Your task to perform on an android device: Open Google Chrome and click the shortcut for Amazon.com Image 0: 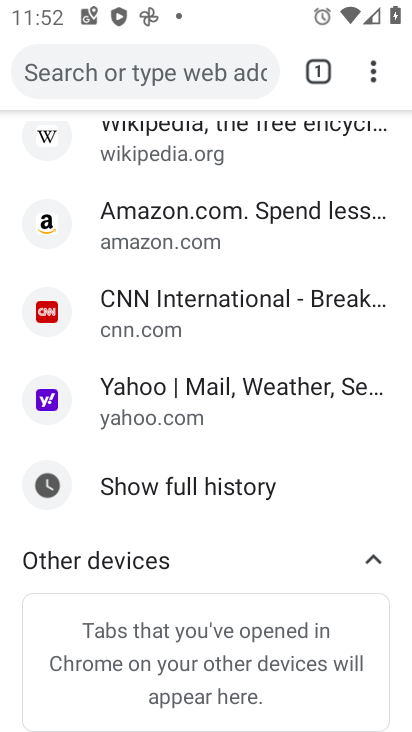
Step 0: press home button
Your task to perform on an android device: Open Google Chrome and click the shortcut for Amazon.com Image 1: 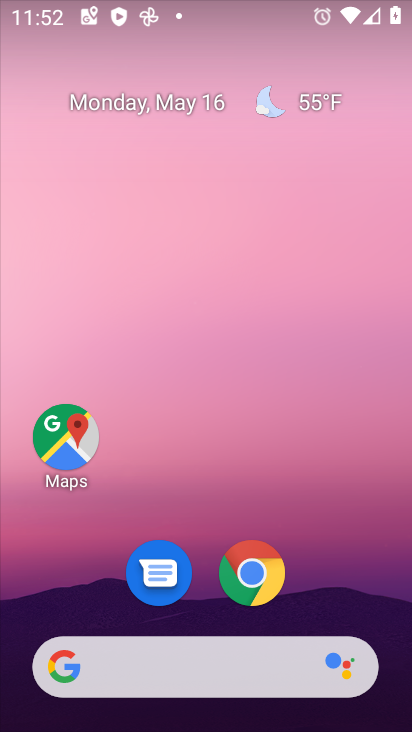
Step 1: click (267, 555)
Your task to perform on an android device: Open Google Chrome and click the shortcut for Amazon.com Image 2: 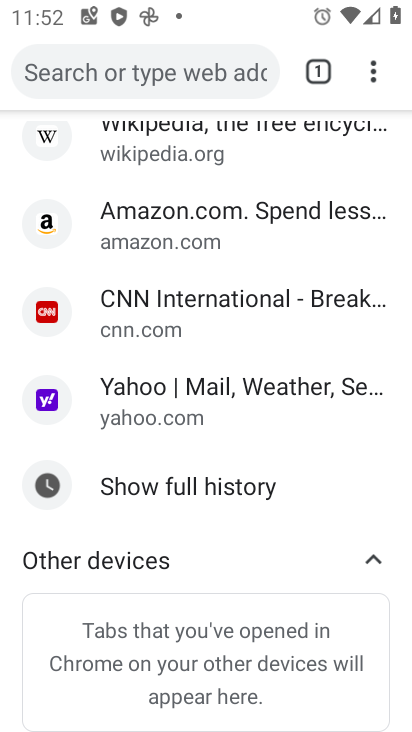
Step 2: click (318, 78)
Your task to perform on an android device: Open Google Chrome and click the shortcut for Amazon.com Image 3: 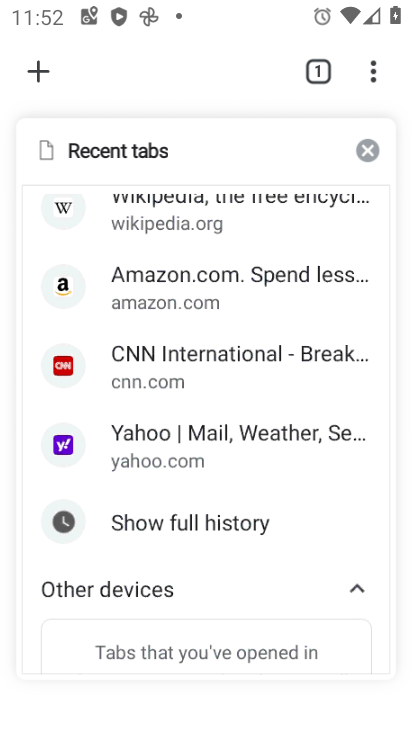
Step 3: click (375, 158)
Your task to perform on an android device: Open Google Chrome and click the shortcut for Amazon.com Image 4: 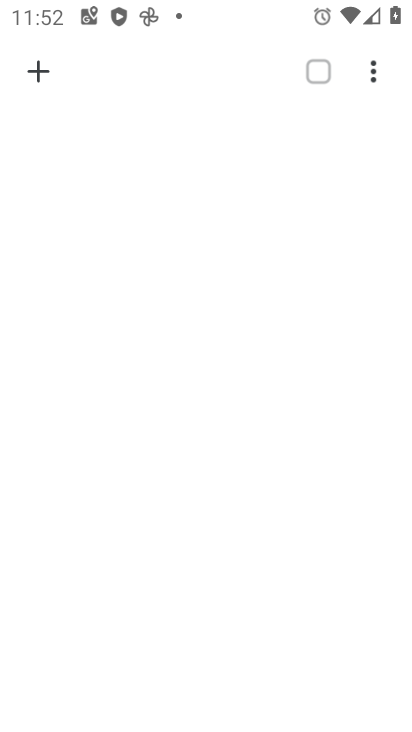
Step 4: click (44, 81)
Your task to perform on an android device: Open Google Chrome and click the shortcut for Amazon.com Image 5: 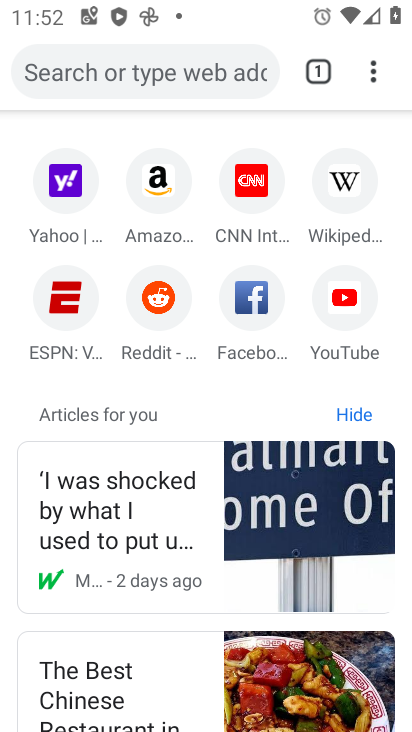
Step 5: click (148, 193)
Your task to perform on an android device: Open Google Chrome and click the shortcut for Amazon.com Image 6: 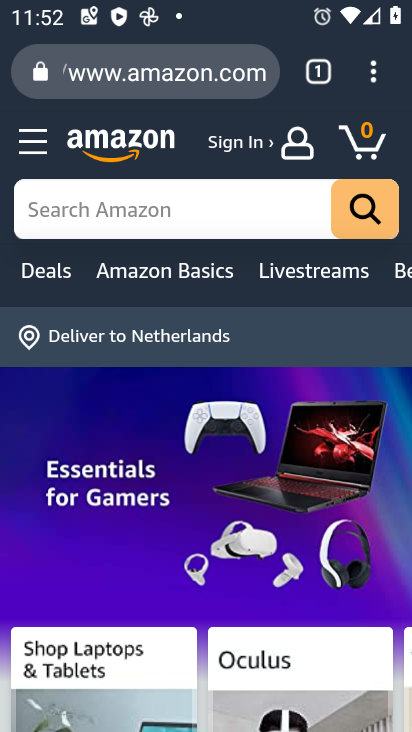
Step 6: task complete